Your task to perform on an android device: all mails in gmail Image 0: 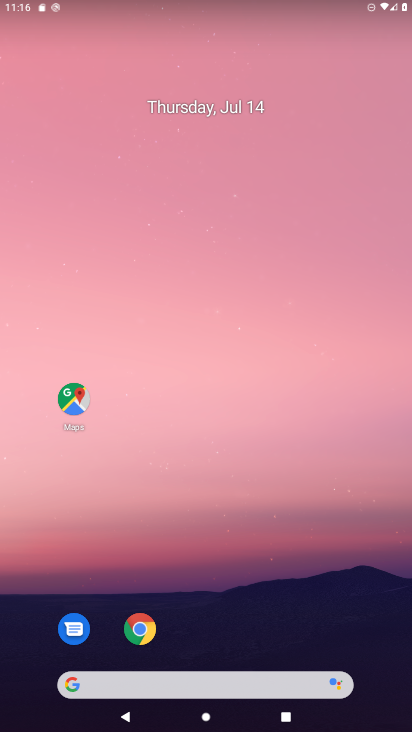
Step 0: click (187, 206)
Your task to perform on an android device: all mails in gmail Image 1: 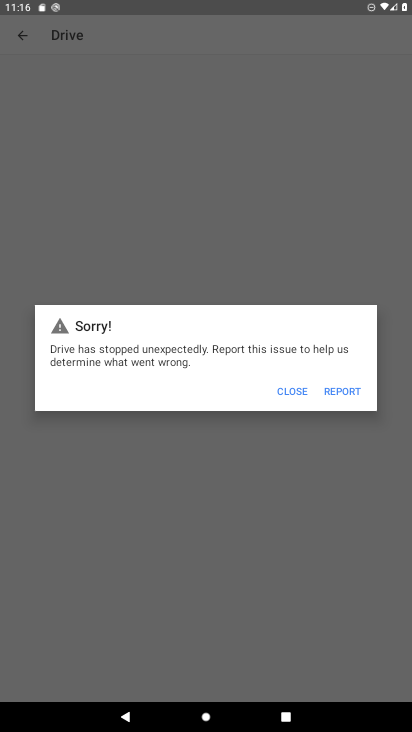
Step 1: press home button
Your task to perform on an android device: all mails in gmail Image 2: 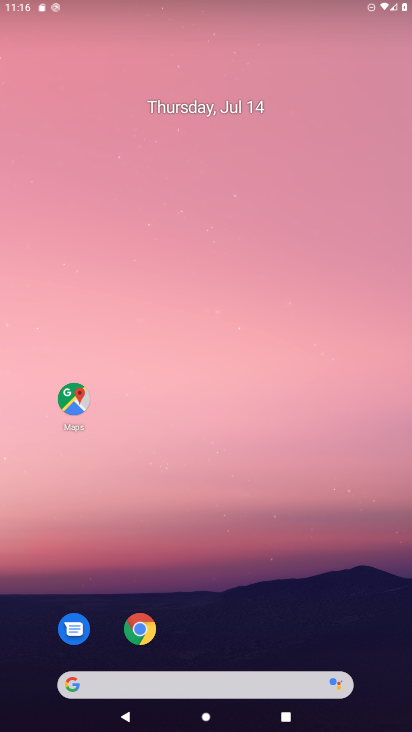
Step 2: drag from (250, 635) to (202, 89)
Your task to perform on an android device: all mails in gmail Image 3: 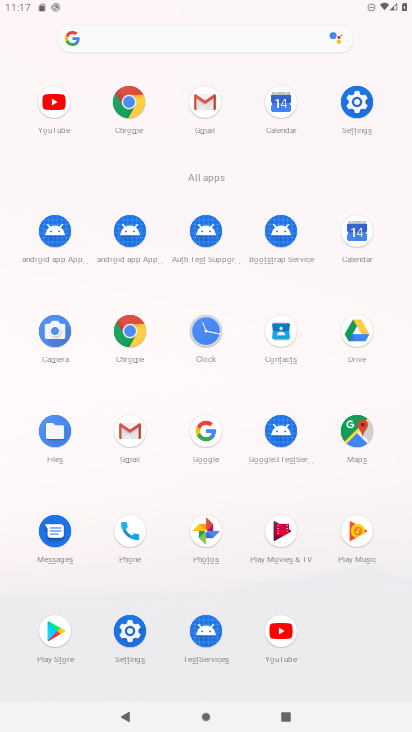
Step 3: click (135, 447)
Your task to perform on an android device: all mails in gmail Image 4: 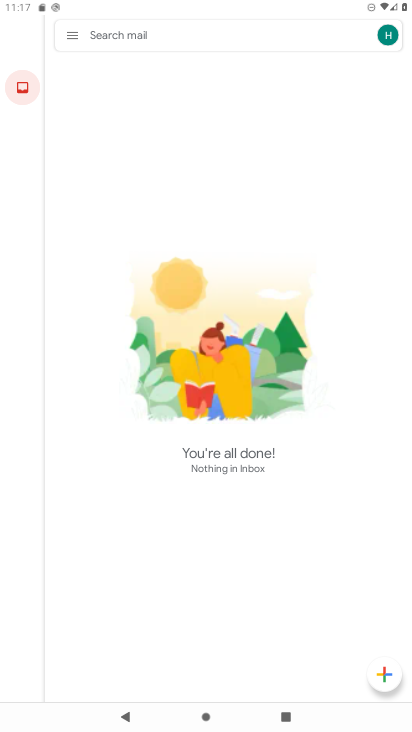
Step 4: click (72, 42)
Your task to perform on an android device: all mails in gmail Image 5: 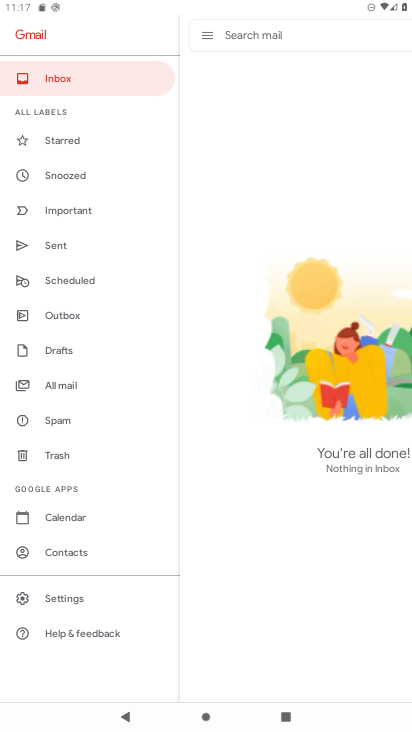
Step 5: click (65, 383)
Your task to perform on an android device: all mails in gmail Image 6: 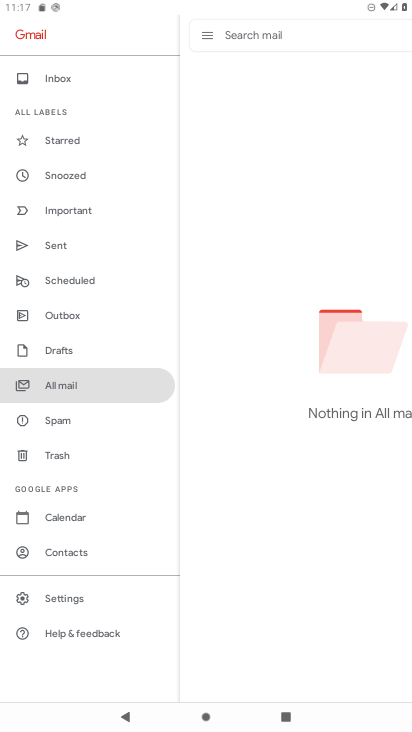
Step 6: click (98, 387)
Your task to perform on an android device: all mails in gmail Image 7: 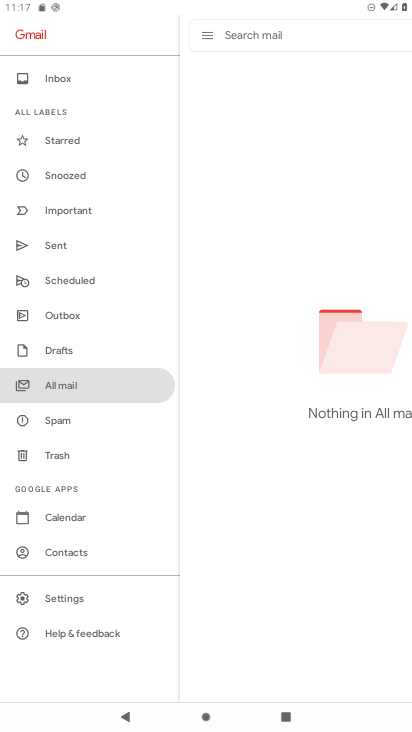
Step 7: task complete